Your task to perform on an android device: check storage Image 0: 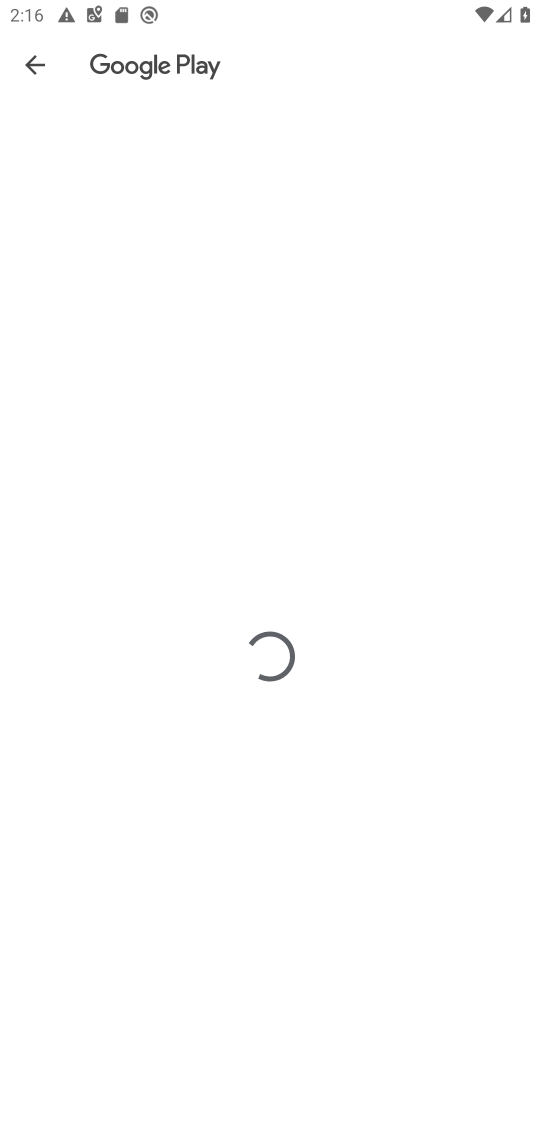
Step 0: press home button
Your task to perform on an android device: check storage Image 1: 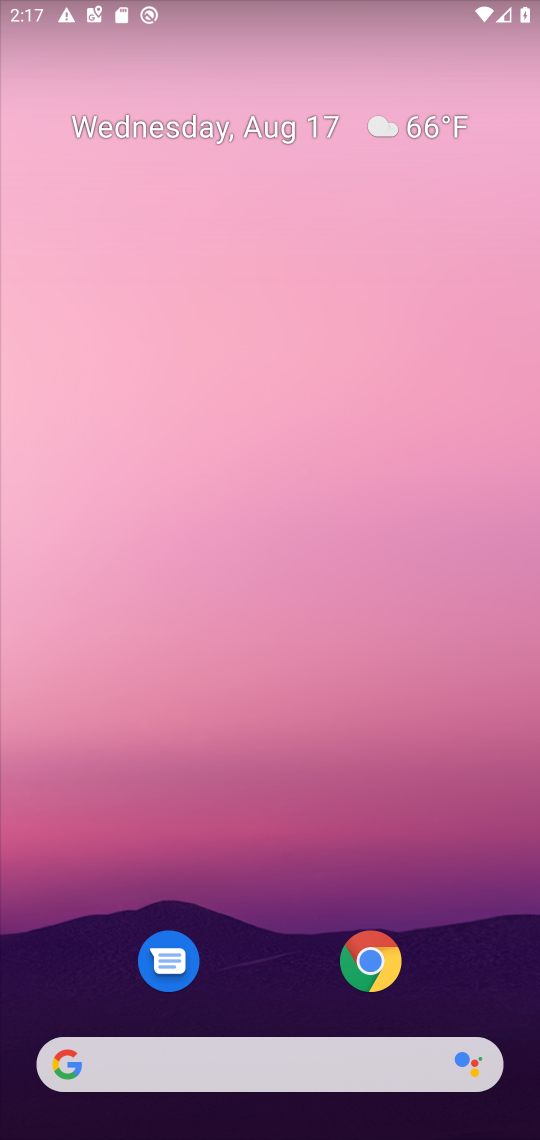
Step 1: drag from (318, 834) to (415, 54)
Your task to perform on an android device: check storage Image 2: 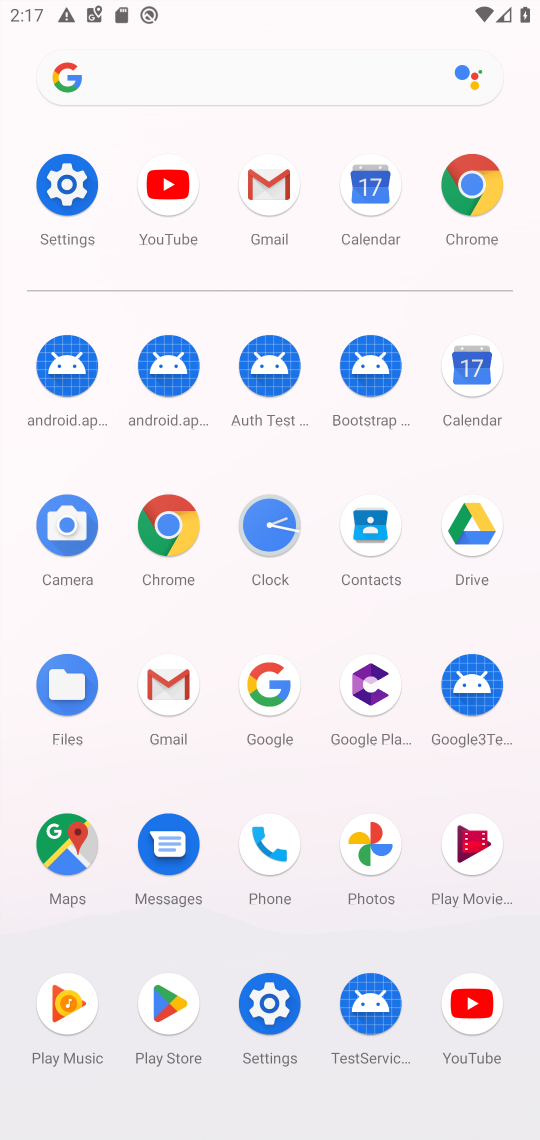
Step 2: click (273, 1026)
Your task to perform on an android device: check storage Image 3: 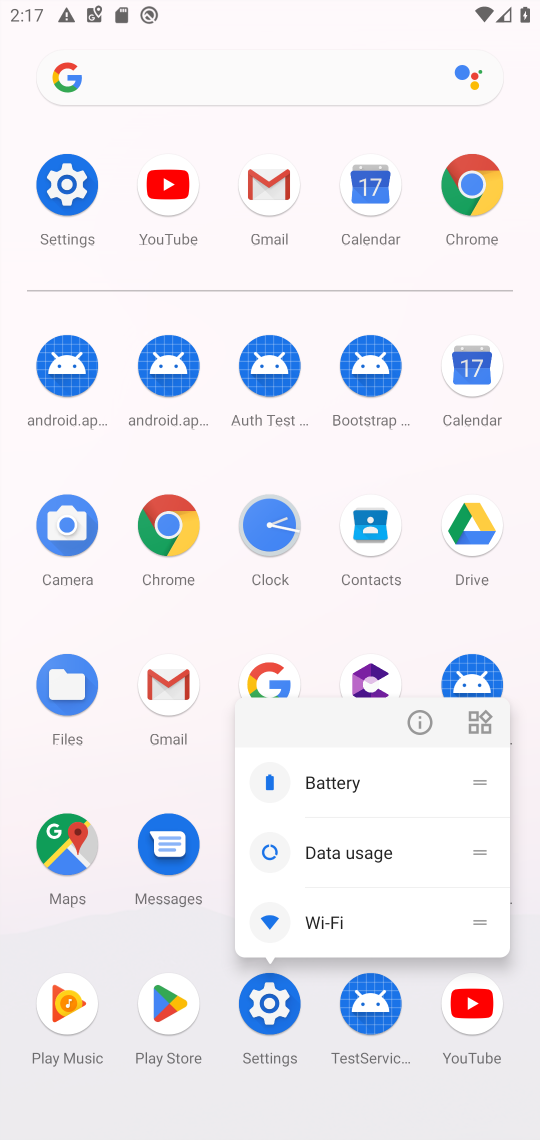
Step 3: click (269, 1034)
Your task to perform on an android device: check storage Image 4: 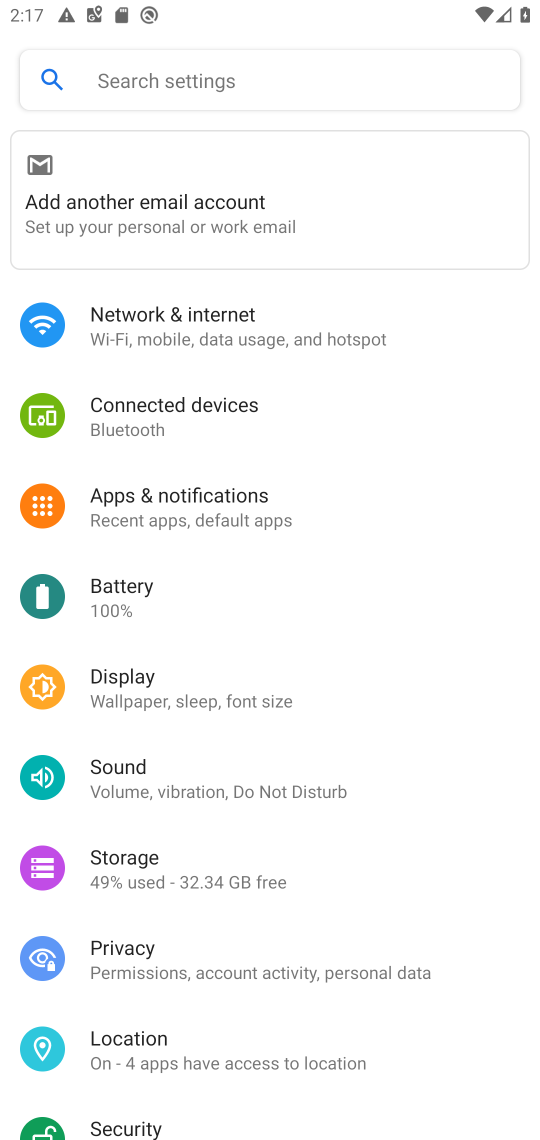
Step 4: click (235, 880)
Your task to perform on an android device: check storage Image 5: 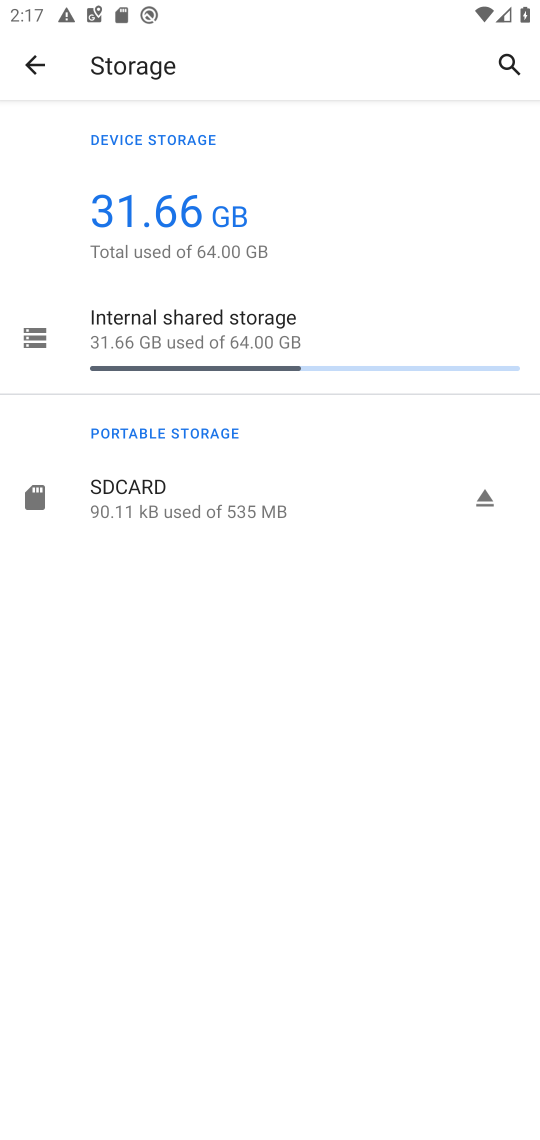
Step 5: click (275, 318)
Your task to perform on an android device: check storage Image 6: 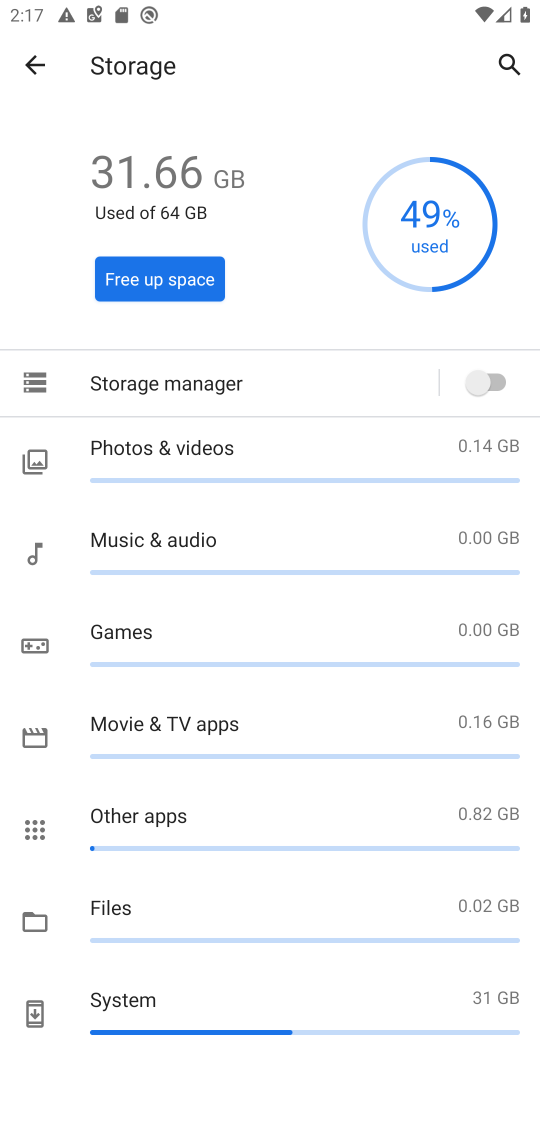
Step 6: task complete